Your task to perform on an android device: turn off translation in the chrome app Image 0: 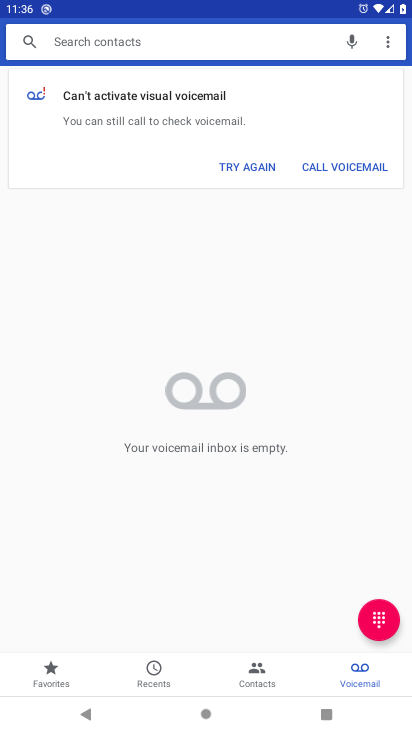
Step 0: press home button
Your task to perform on an android device: turn off translation in the chrome app Image 1: 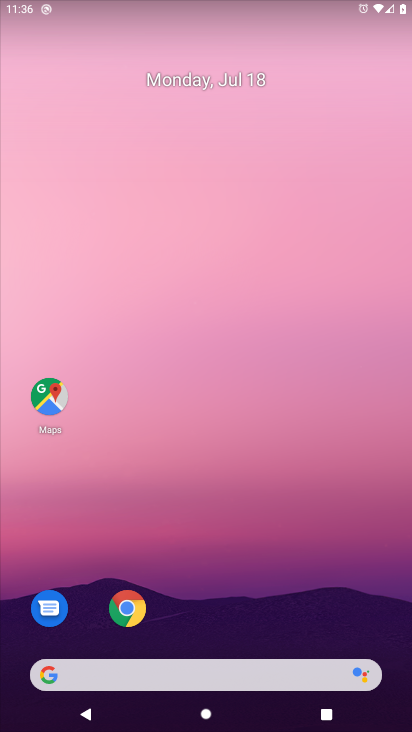
Step 1: click (135, 610)
Your task to perform on an android device: turn off translation in the chrome app Image 2: 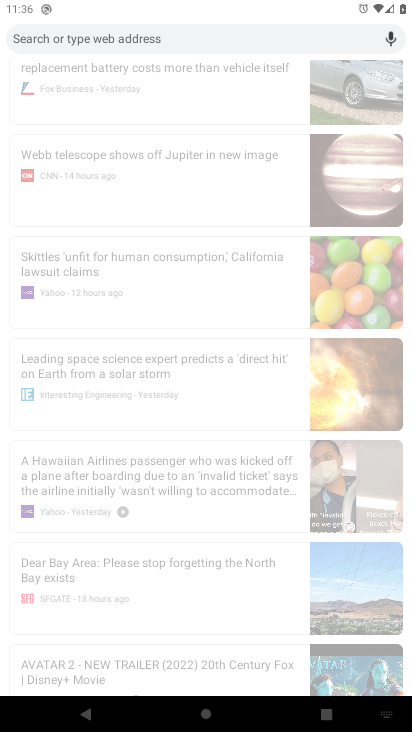
Step 2: click (26, 114)
Your task to perform on an android device: turn off translation in the chrome app Image 3: 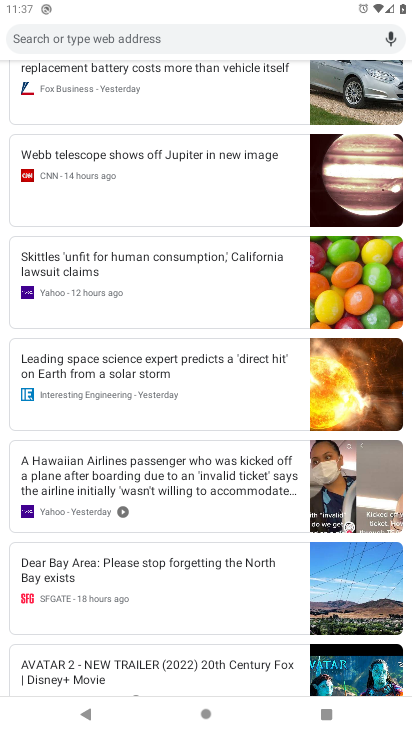
Step 3: click (38, 31)
Your task to perform on an android device: turn off translation in the chrome app Image 4: 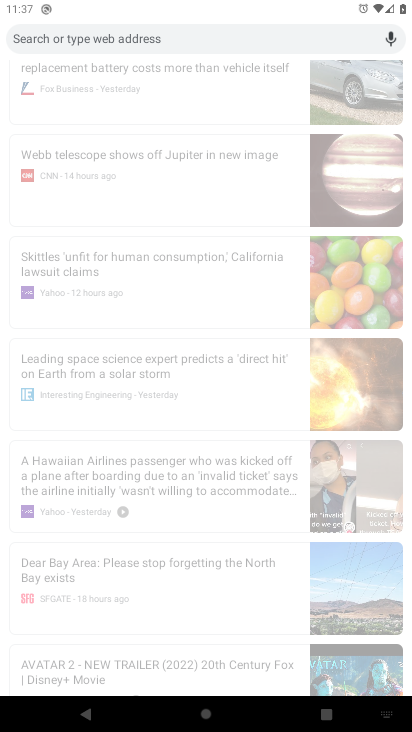
Step 4: press home button
Your task to perform on an android device: turn off translation in the chrome app Image 5: 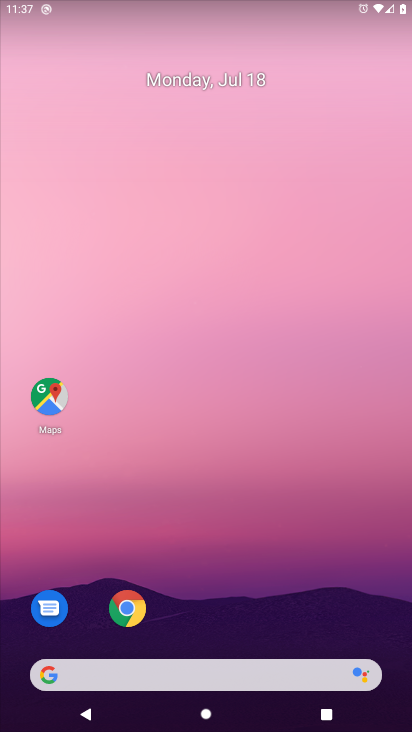
Step 5: click (123, 604)
Your task to perform on an android device: turn off translation in the chrome app Image 6: 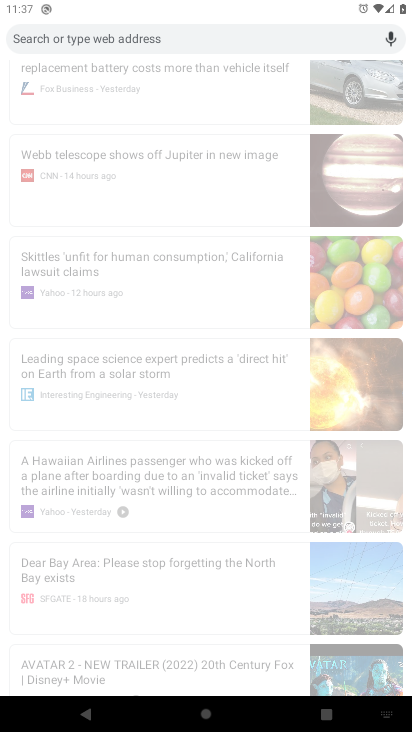
Step 6: task complete